Your task to perform on an android device: turn off picture-in-picture Image 0: 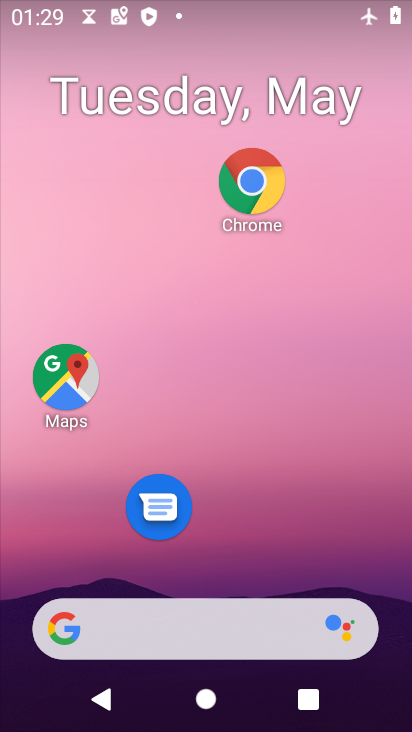
Step 0: drag from (292, 423) to (314, 191)
Your task to perform on an android device: turn off picture-in-picture Image 1: 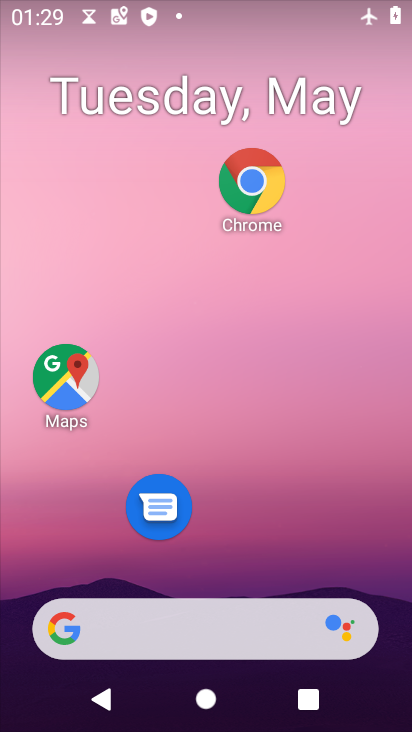
Step 1: drag from (297, 448) to (324, 201)
Your task to perform on an android device: turn off picture-in-picture Image 2: 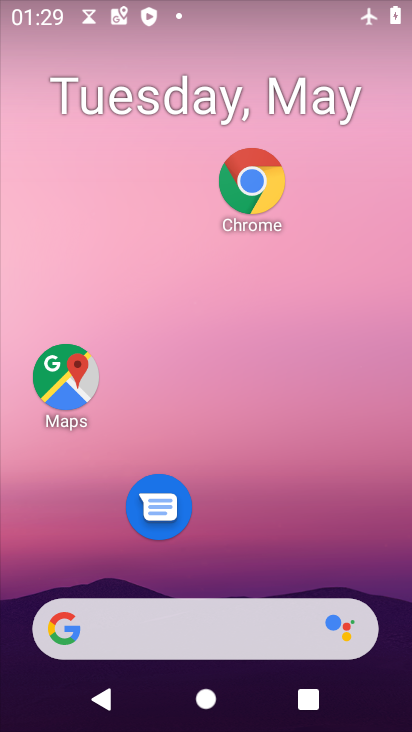
Step 2: drag from (251, 581) to (357, 210)
Your task to perform on an android device: turn off picture-in-picture Image 3: 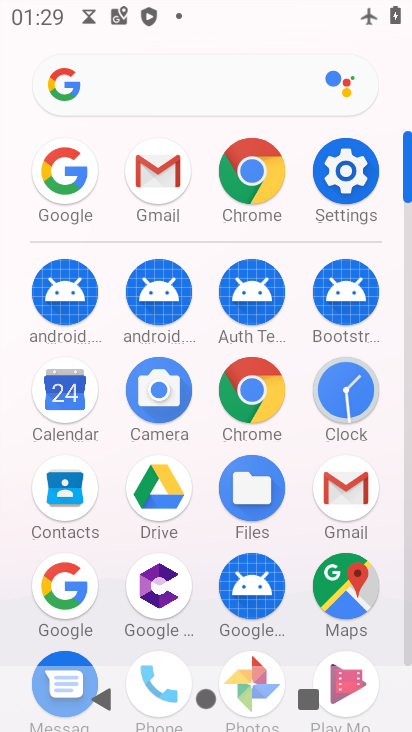
Step 3: click (356, 155)
Your task to perform on an android device: turn off picture-in-picture Image 4: 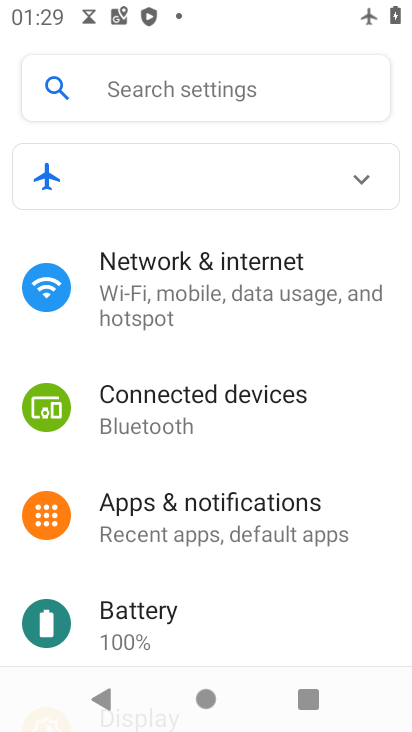
Step 4: click (253, 250)
Your task to perform on an android device: turn off picture-in-picture Image 5: 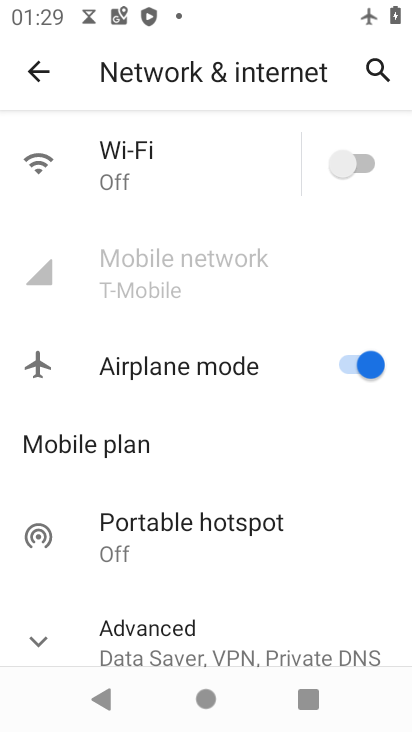
Step 5: click (42, 70)
Your task to perform on an android device: turn off picture-in-picture Image 6: 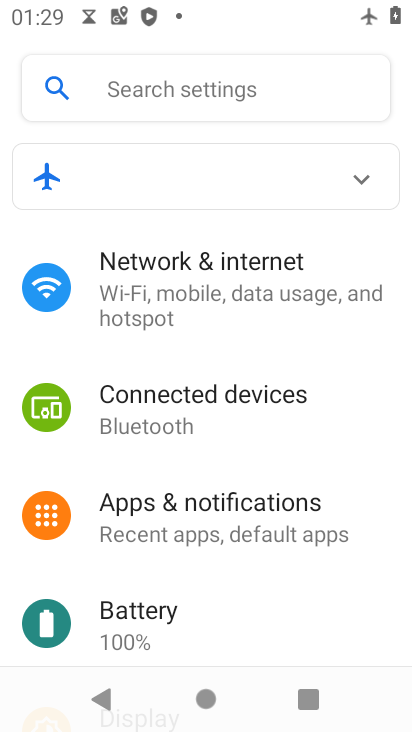
Step 6: click (231, 508)
Your task to perform on an android device: turn off picture-in-picture Image 7: 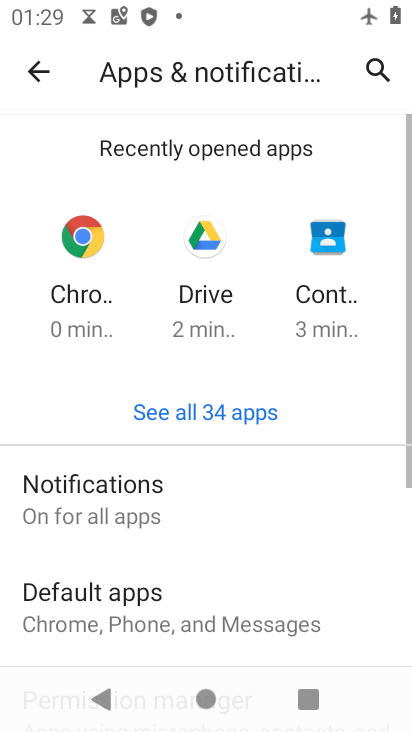
Step 7: drag from (239, 583) to (288, 296)
Your task to perform on an android device: turn off picture-in-picture Image 8: 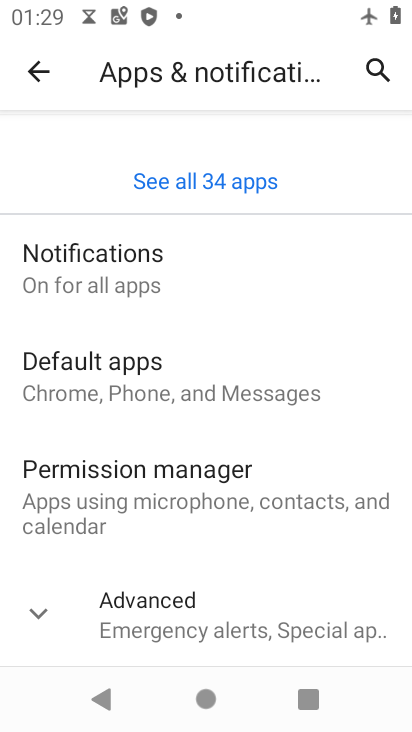
Step 8: drag from (233, 580) to (246, 364)
Your task to perform on an android device: turn off picture-in-picture Image 9: 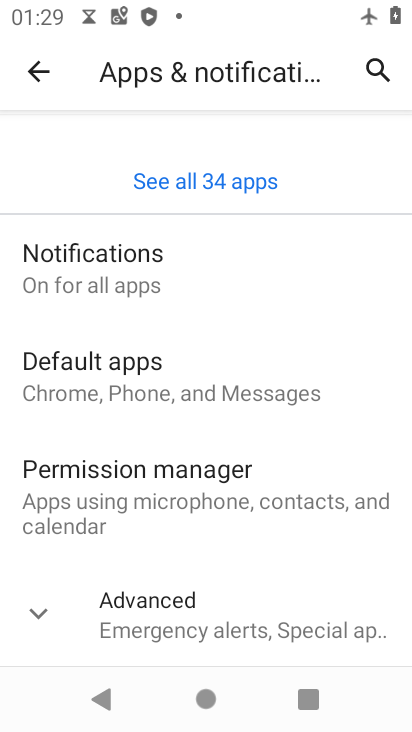
Step 9: click (268, 622)
Your task to perform on an android device: turn off picture-in-picture Image 10: 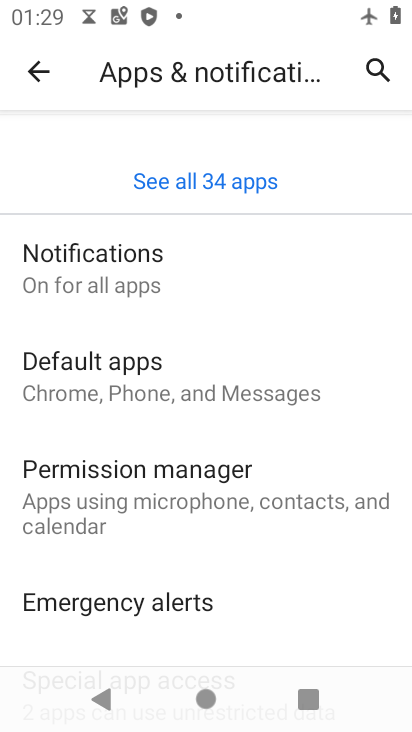
Step 10: drag from (268, 607) to (291, 201)
Your task to perform on an android device: turn off picture-in-picture Image 11: 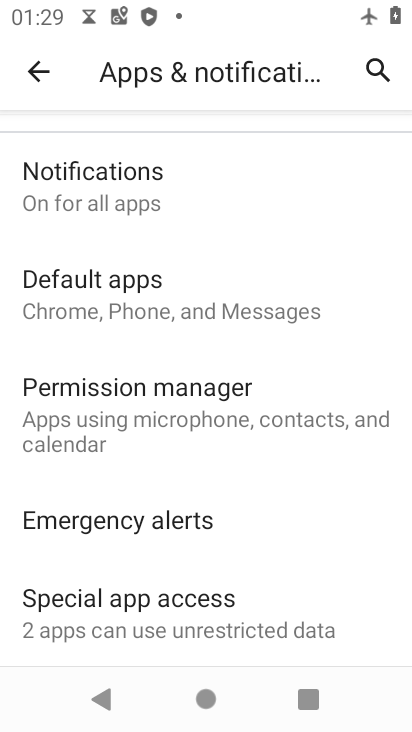
Step 11: click (193, 619)
Your task to perform on an android device: turn off picture-in-picture Image 12: 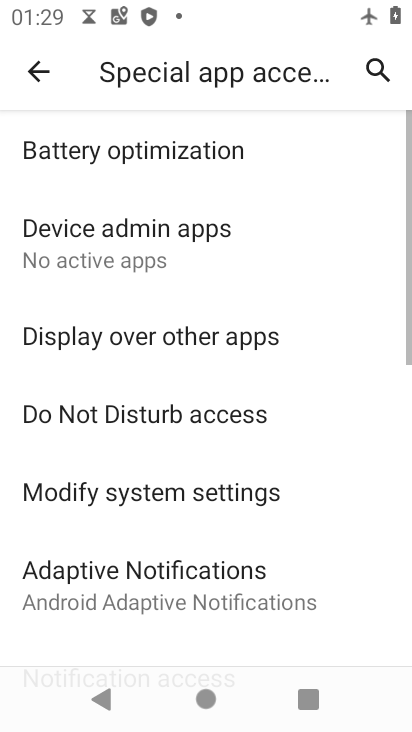
Step 12: drag from (191, 585) to (236, 144)
Your task to perform on an android device: turn off picture-in-picture Image 13: 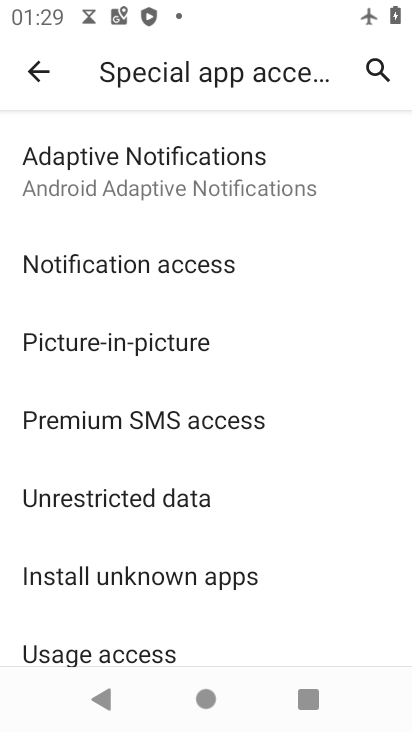
Step 13: click (148, 358)
Your task to perform on an android device: turn off picture-in-picture Image 14: 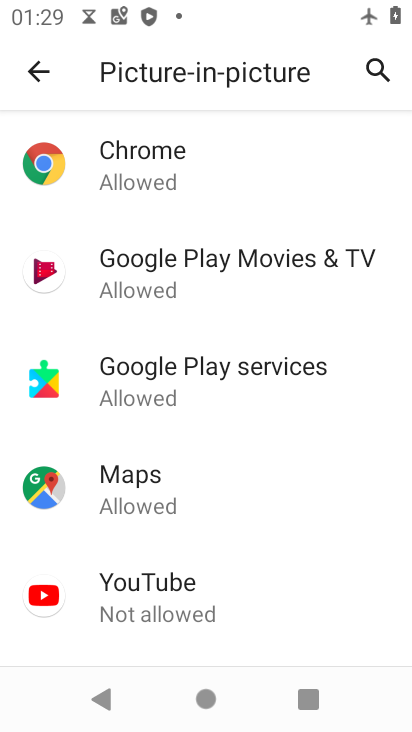
Step 14: click (171, 607)
Your task to perform on an android device: turn off picture-in-picture Image 15: 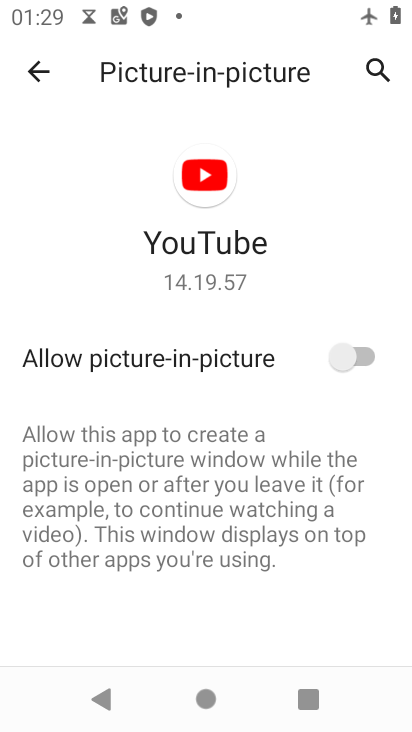
Step 15: task complete